Your task to perform on an android device: turn on priority inbox in the gmail app Image 0: 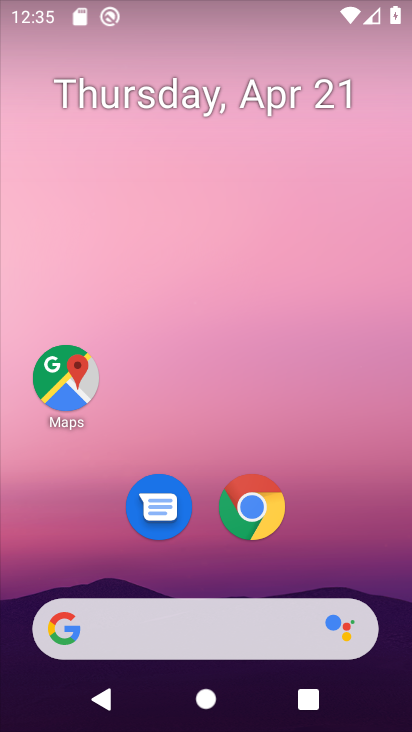
Step 0: drag from (132, 554) to (243, 40)
Your task to perform on an android device: turn on priority inbox in the gmail app Image 1: 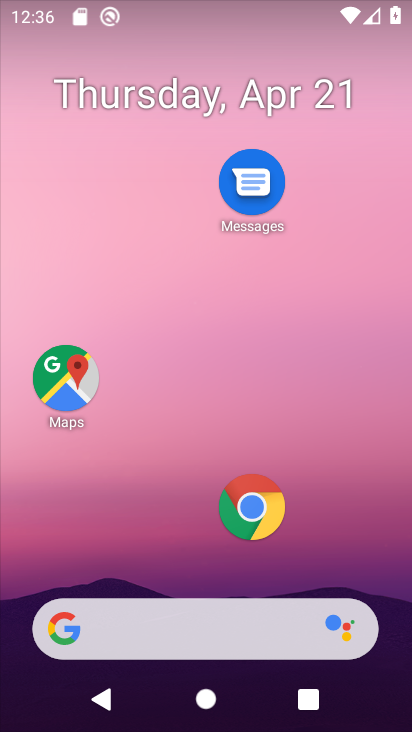
Step 1: drag from (139, 518) to (221, 67)
Your task to perform on an android device: turn on priority inbox in the gmail app Image 2: 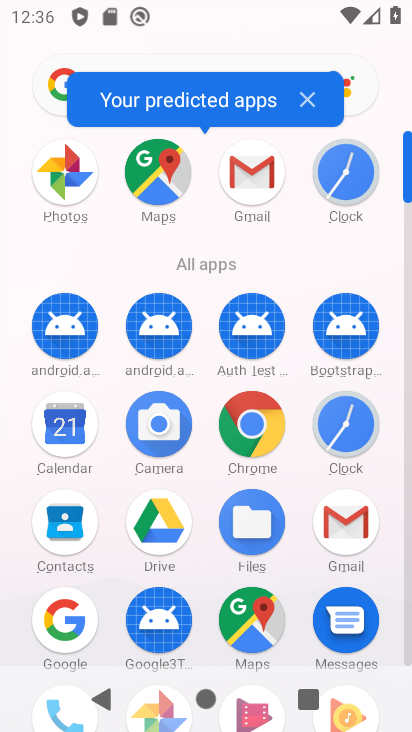
Step 2: click (356, 532)
Your task to perform on an android device: turn on priority inbox in the gmail app Image 3: 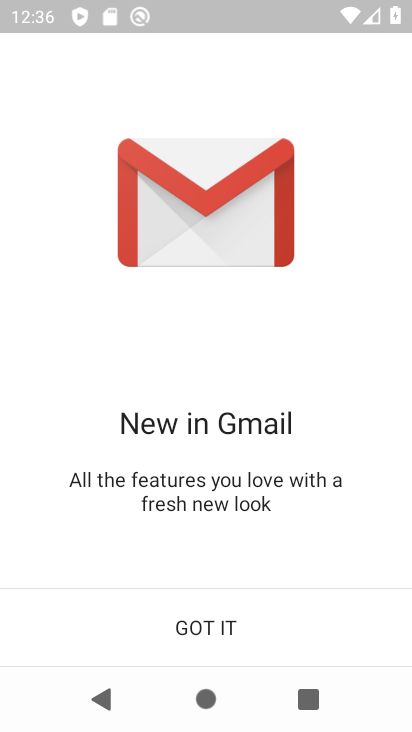
Step 3: click (218, 635)
Your task to perform on an android device: turn on priority inbox in the gmail app Image 4: 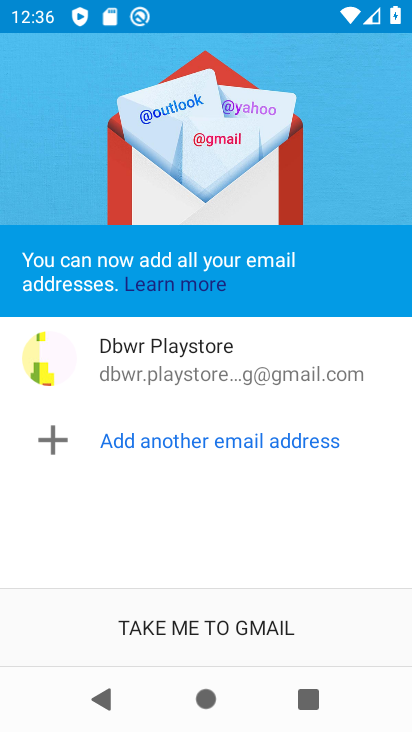
Step 4: click (223, 630)
Your task to perform on an android device: turn on priority inbox in the gmail app Image 5: 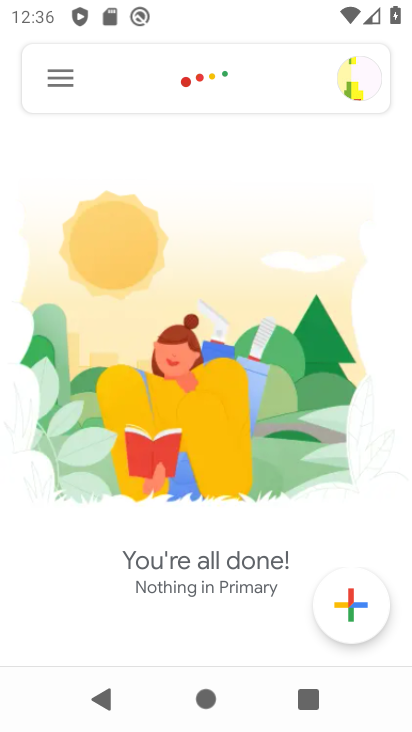
Step 5: click (57, 85)
Your task to perform on an android device: turn on priority inbox in the gmail app Image 6: 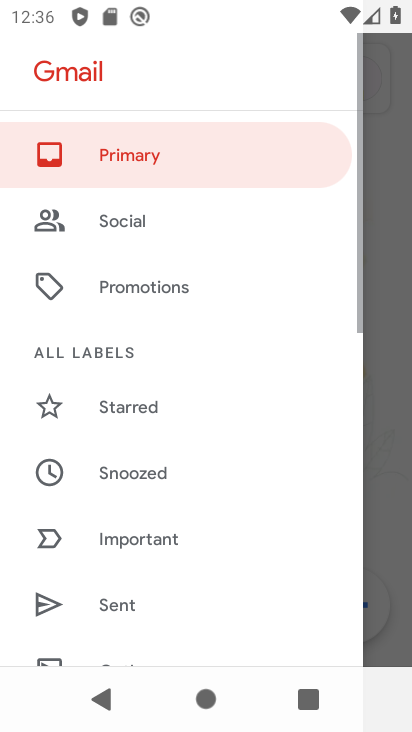
Step 6: drag from (150, 611) to (273, 168)
Your task to perform on an android device: turn on priority inbox in the gmail app Image 7: 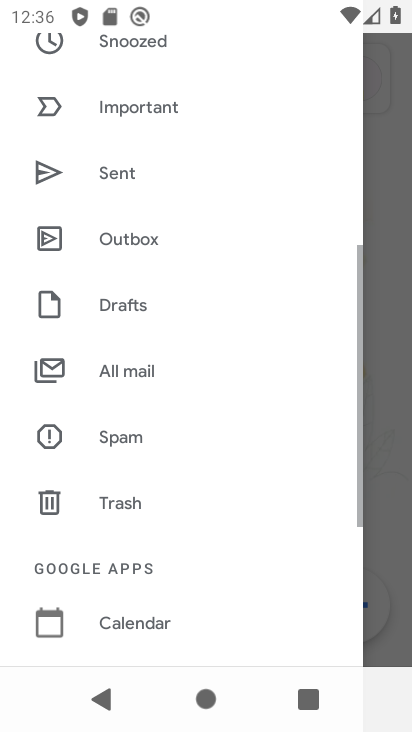
Step 7: drag from (193, 537) to (292, 185)
Your task to perform on an android device: turn on priority inbox in the gmail app Image 8: 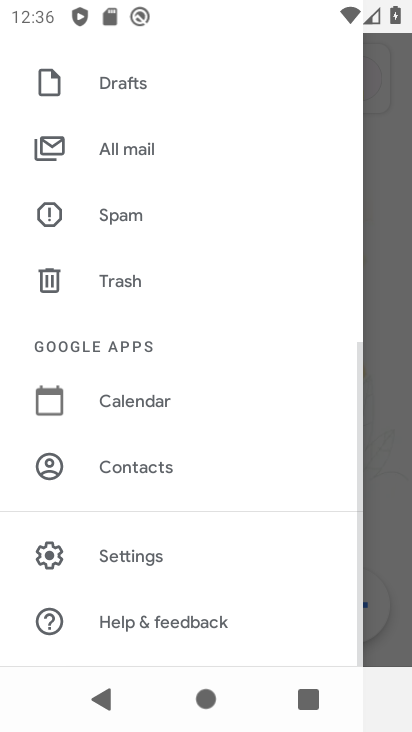
Step 8: click (221, 572)
Your task to perform on an android device: turn on priority inbox in the gmail app Image 9: 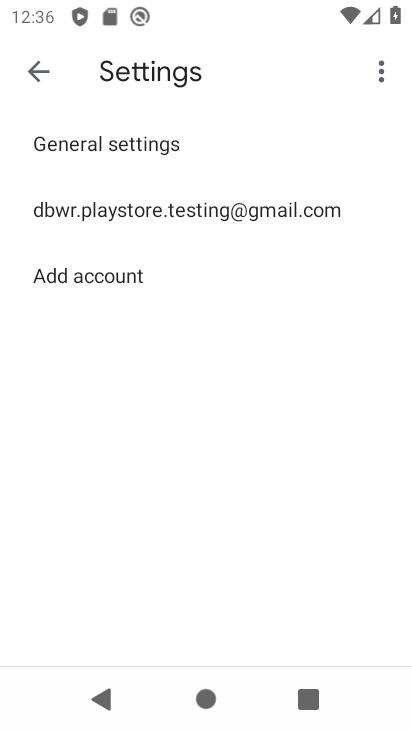
Step 9: click (231, 221)
Your task to perform on an android device: turn on priority inbox in the gmail app Image 10: 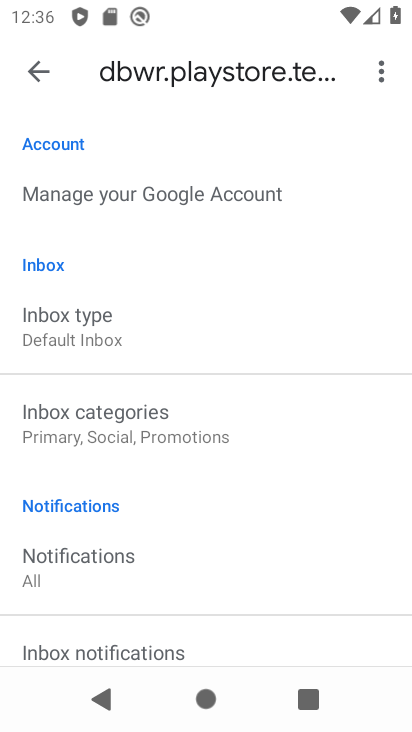
Step 10: click (201, 337)
Your task to perform on an android device: turn on priority inbox in the gmail app Image 11: 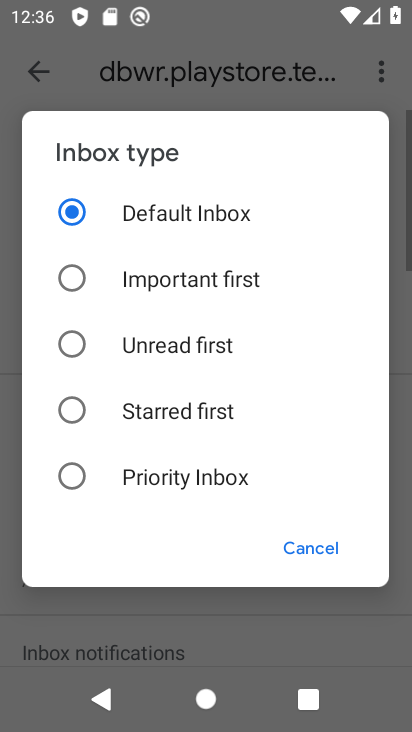
Step 11: click (214, 477)
Your task to perform on an android device: turn on priority inbox in the gmail app Image 12: 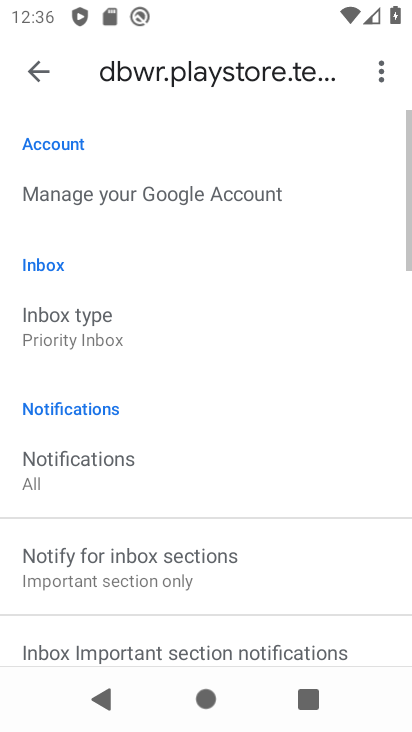
Step 12: task complete